Your task to perform on an android device: Open Google Maps Image 0: 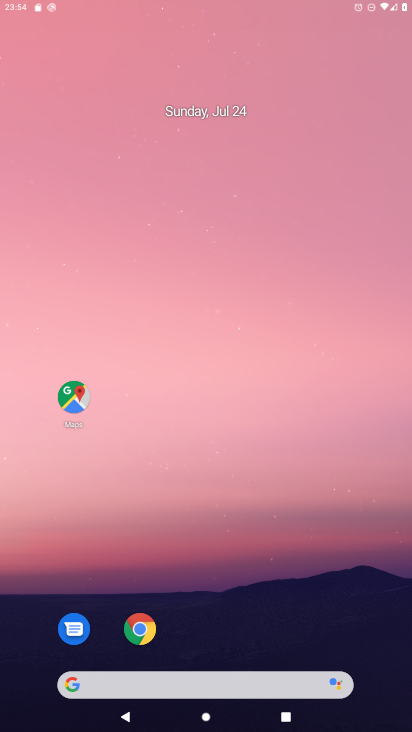
Step 0: drag from (181, 554) to (124, 52)
Your task to perform on an android device: Open Google Maps Image 1: 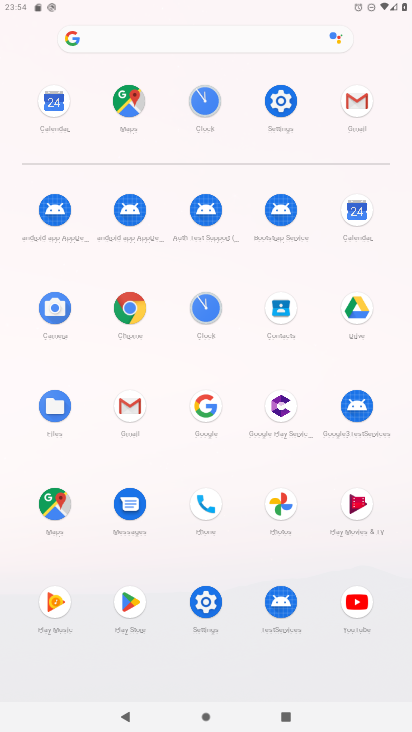
Step 1: drag from (201, 451) to (190, 270)
Your task to perform on an android device: Open Google Maps Image 2: 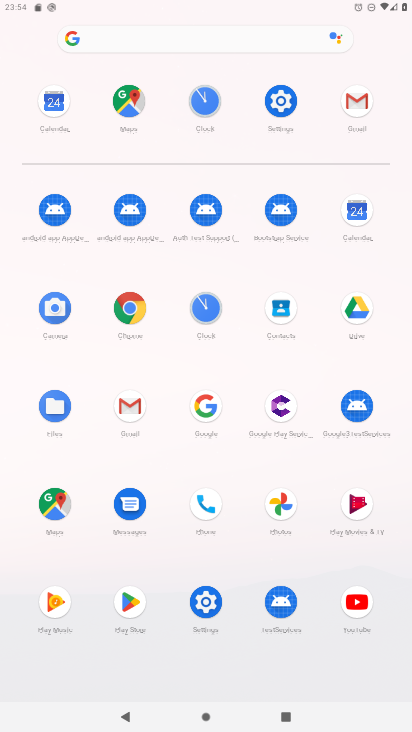
Step 2: click (56, 501)
Your task to perform on an android device: Open Google Maps Image 3: 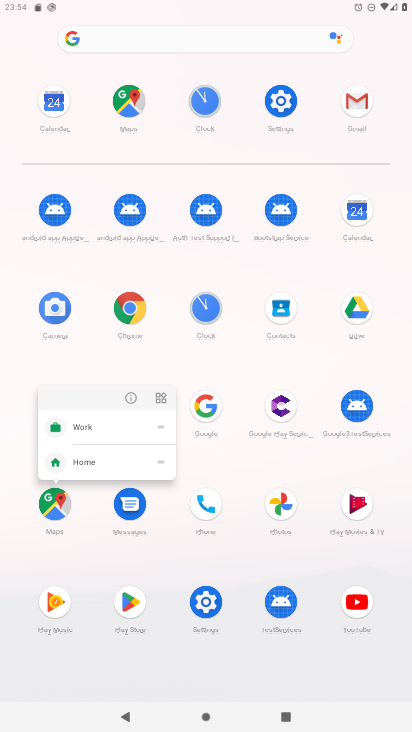
Step 3: click (127, 391)
Your task to perform on an android device: Open Google Maps Image 4: 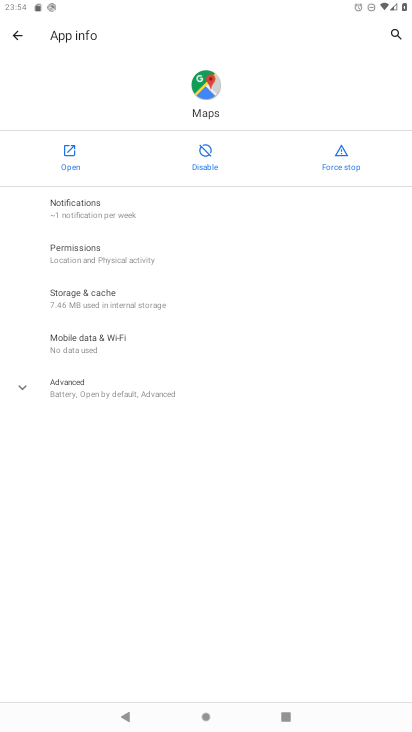
Step 4: click (52, 148)
Your task to perform on an android device: Open Google Maps Image 5: 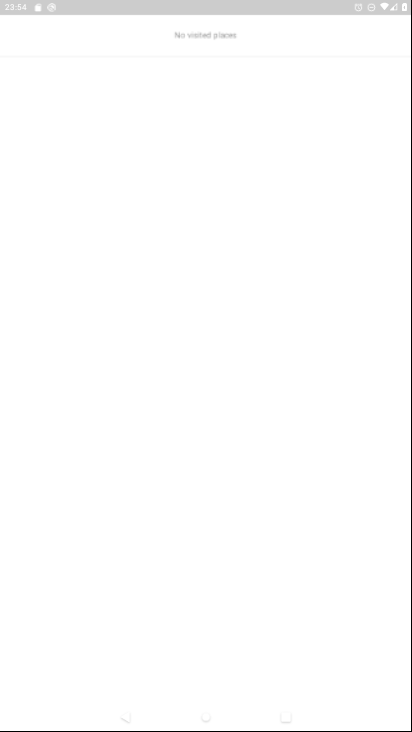
Step 5: task complete